Your task to perform on an android device: clear history in the chrome app Image 0: 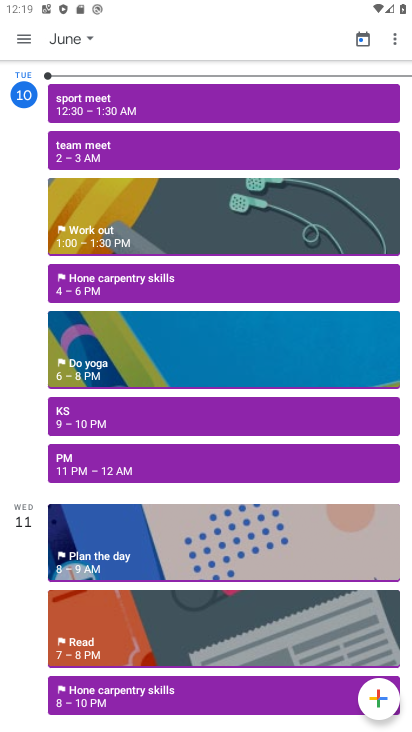
Step 0: press back button
Your task to perform on an android device: clear history in the chrome app Image 1: 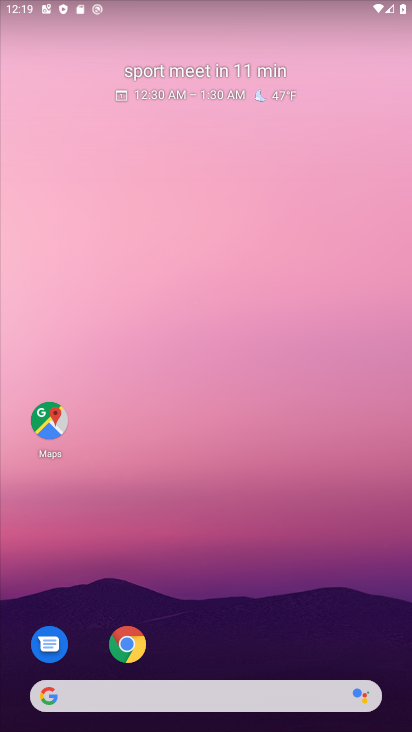
Step 1: click (136, 642)
Your task to perform on an android device: clear history in the chrome app Image 2: 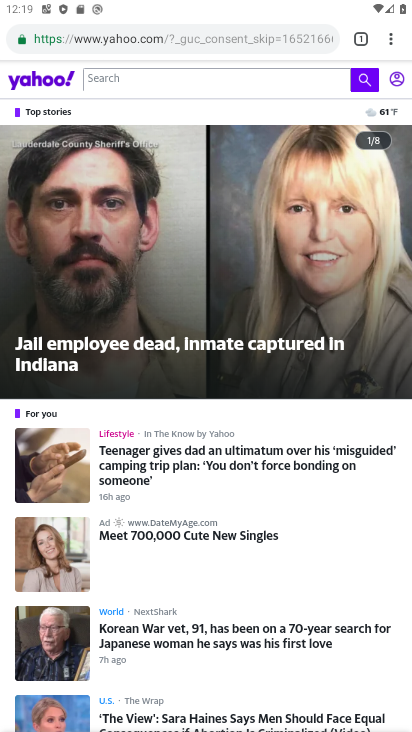
Step 2: task complete